Your task to perform on an android device: Open Yahoo.com Image 0: 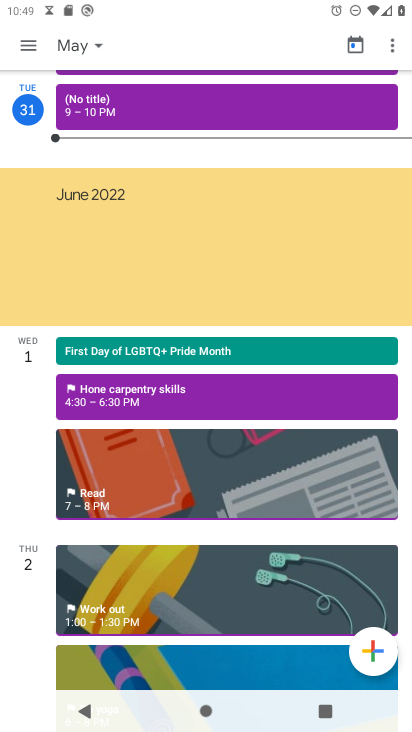
Step 0: press home button
Your task to perform on an android device: Open Yahoo.com Image 1: 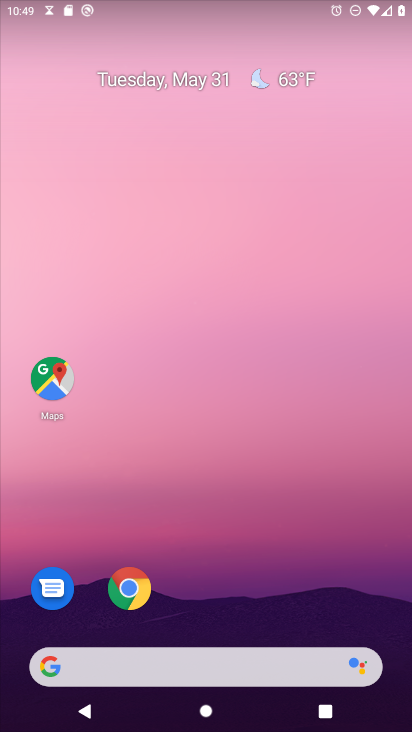
Step 1: click (130, 590)
Your task to perform on an android device: Open Yahoo.com Image 2: 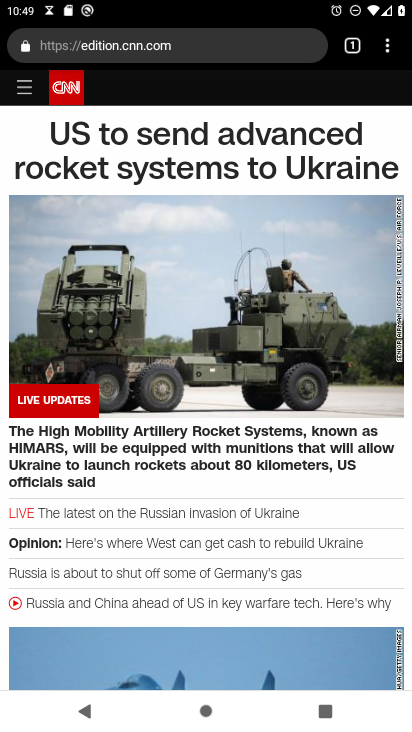
Step 2: click (130, 590)
Your task to perform on an android device: Open Yahoo.com Image 3: 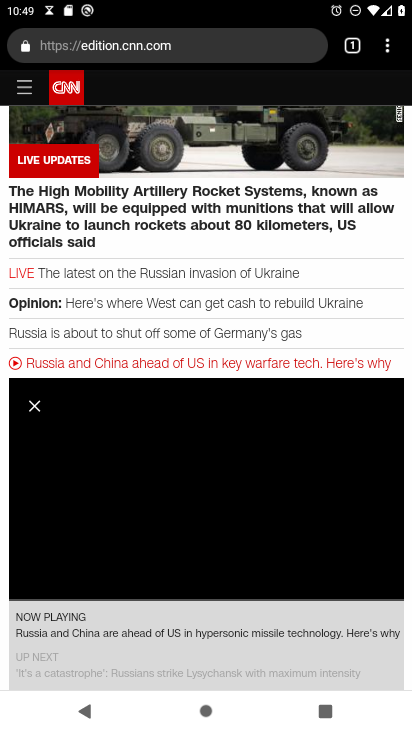
Step 3: click (256, 46)
Your task to perform on an android device: Open Yahoo.com Image 4: 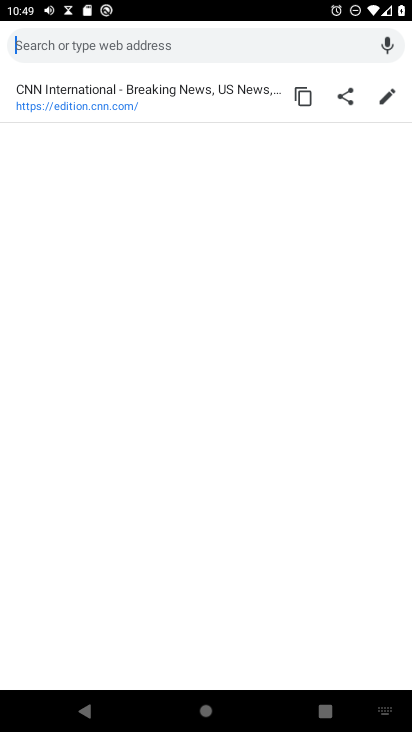
Step 4: type "Yahoo.com"
Your task to perform on an android device: Open Yahoo.com Image 5: 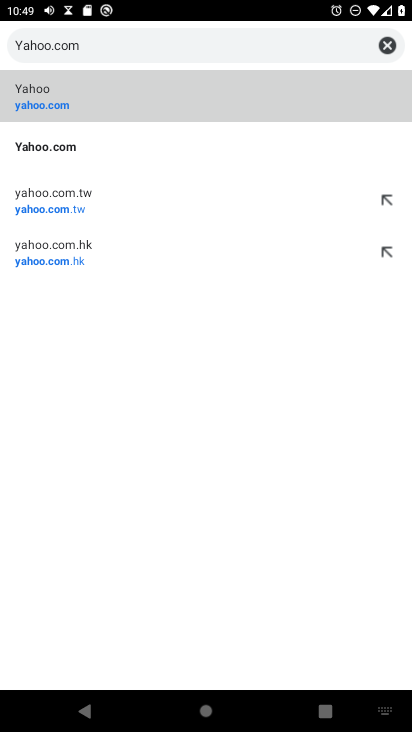
Step 5: click (35, 148)
Your task to perform on an android device: Open Yahoo.com Image 6: 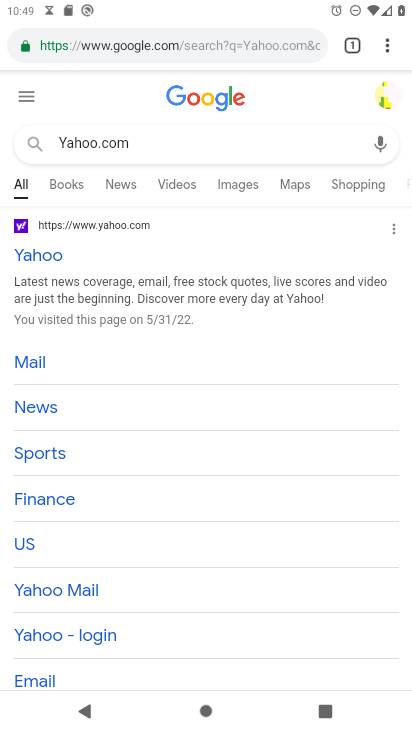
Step 6: click (46, 255)
Your task to perform on an android device: Open Yahoo.com Image 7: 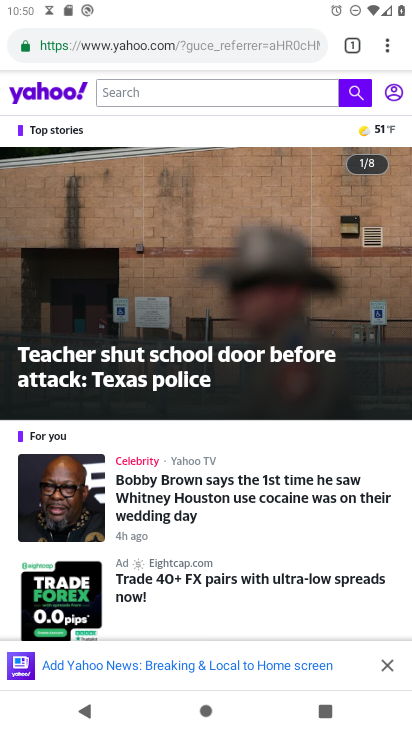
Step 7: task complete